Your task to perform on an android device: turn on wifi Image 0: 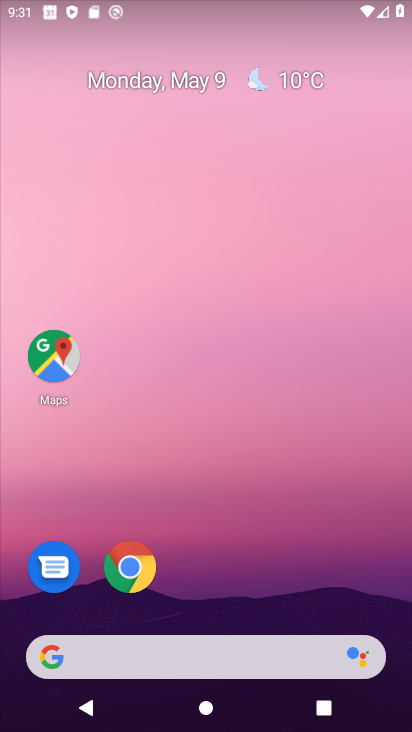
Step 0: drag from (301, 535) to (323, 33)
Your task to perform on an android device: turn on wifi Image 1: 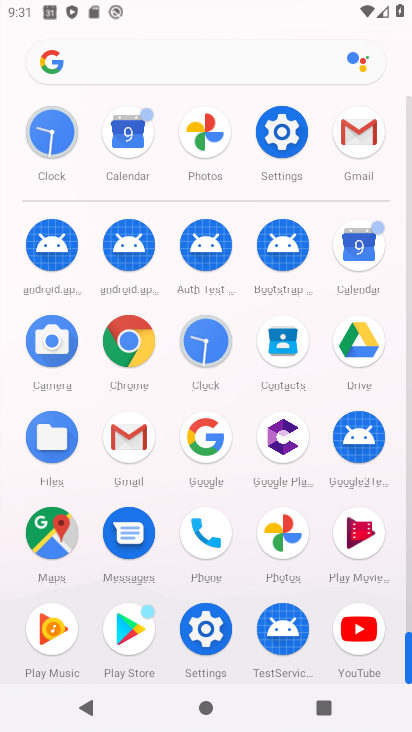
Step 1: click (283, 122)
Your task to perform on an android device: turn on wifi Image 2: 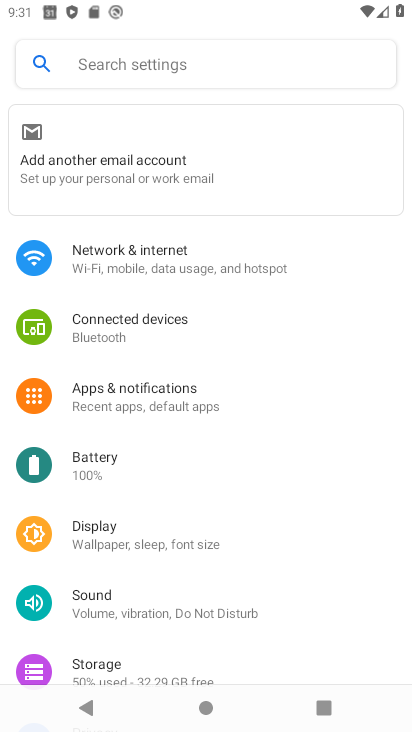
Step 2: click (162, 263)
Your task to perform on an android device: turn on wifi Image 3: 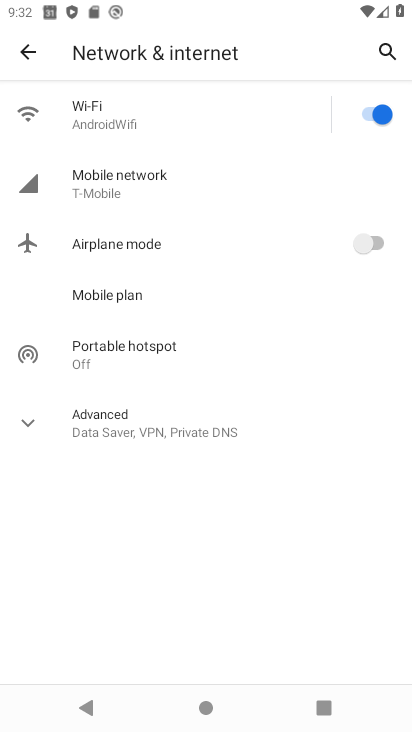
Step 3: task complete